Your task to perform on an android device: turn on improve location accuracy Image 0: 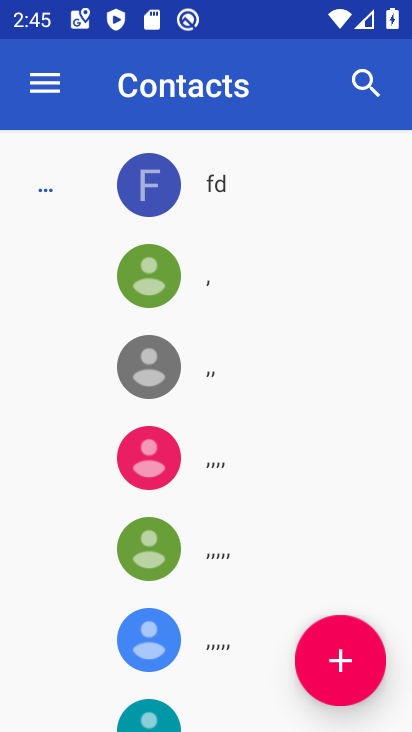
Step 0: press back button
Your task to perform on an android device: turn on improve location accuracy Image 1: 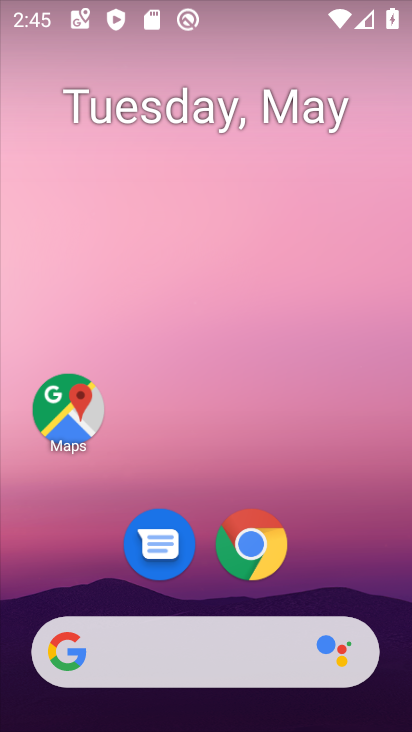
Step 1: drag from (323, 545) to (331, 72)
Your task to perform on an android device: turn on improve location accuracy Image 2: 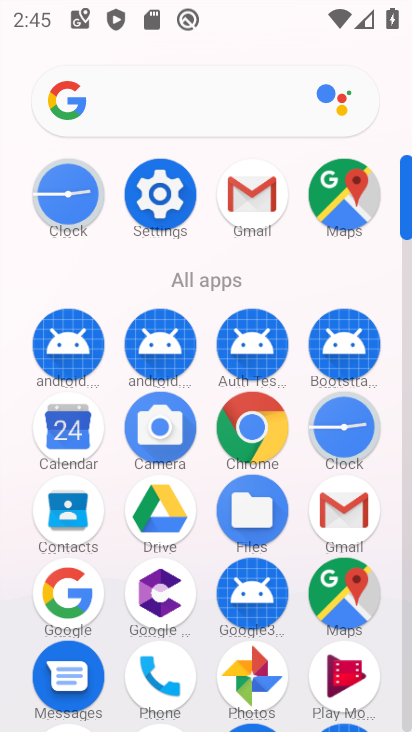
Step 2: click (161, 194)
Your task to perform on an android device: turn on improve location accuracy Image 3: 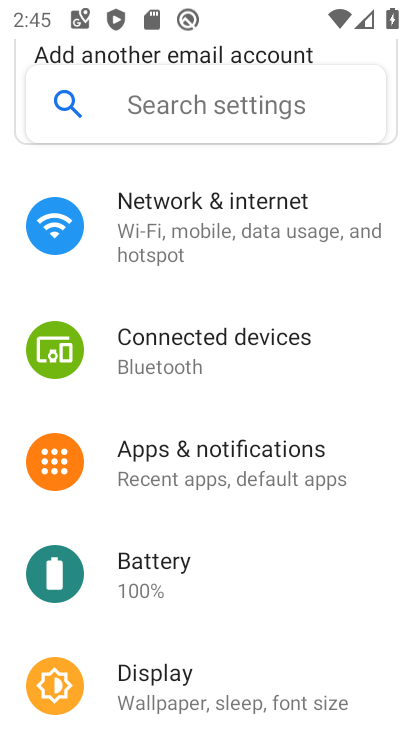
Step 3: drag from (212, 528) to (248, 403)
Your task to perform on an android device: turn on improve location accuracy Image 4: 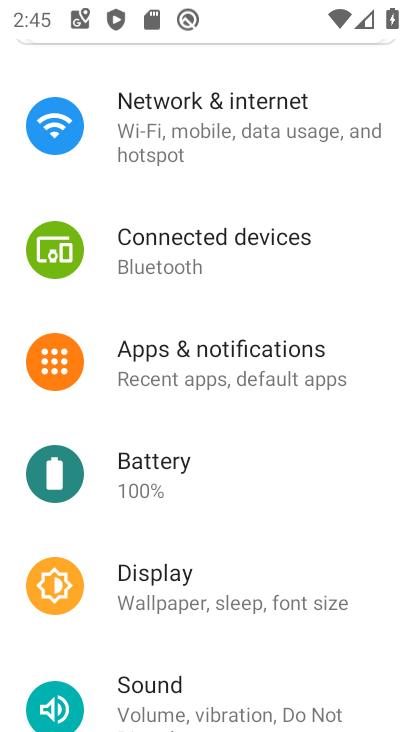
Step 4: drag from (192, 529) to (268, 417)
Your task to perform on an android device: turn on improve location accuracy Image 5: 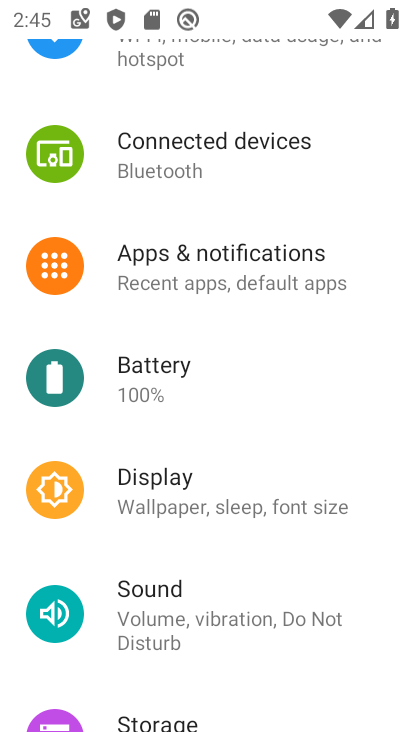
Step 5: drag from (166, 543) to (272, 418)
Your task to perform on an android device: turn on improve location accuracy Image 6: 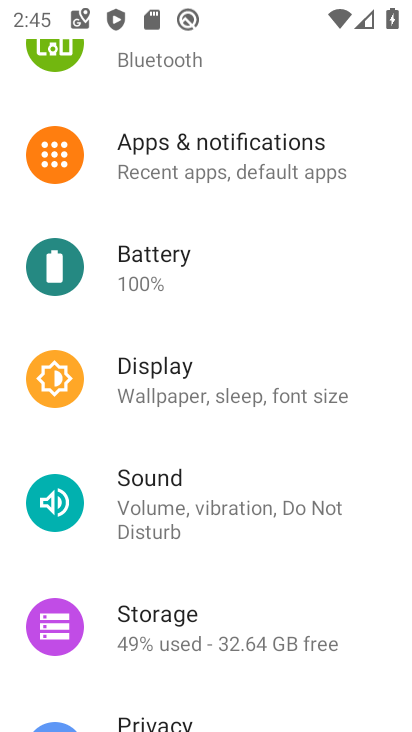
Step 6: drag from (149, 560) to (274, 423)
Your task to perform on an android device: turn on improve location accuracy Image 7: 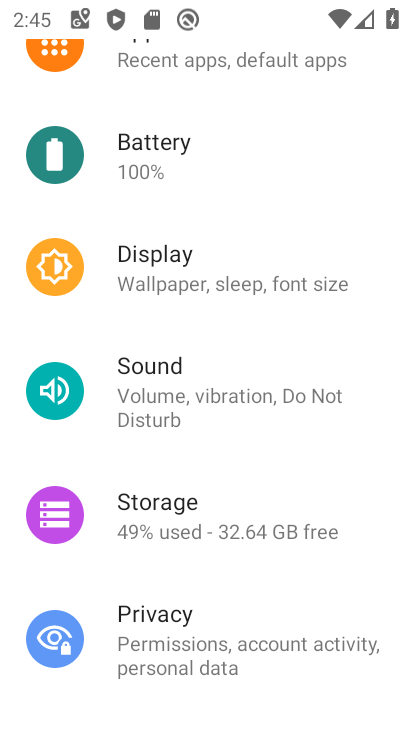
Step 7: drag from (146, 568) to (252, 432)
Your task to perform on an android device: turn on improve location accuracy Image 8: 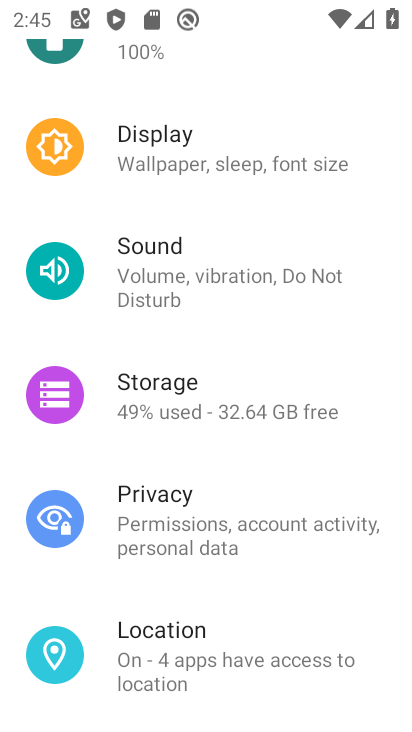
Step 8: drag from (163, 573) to (266, 457)
Your task to perform on an android device: turn on improve location accuracy Image 9: 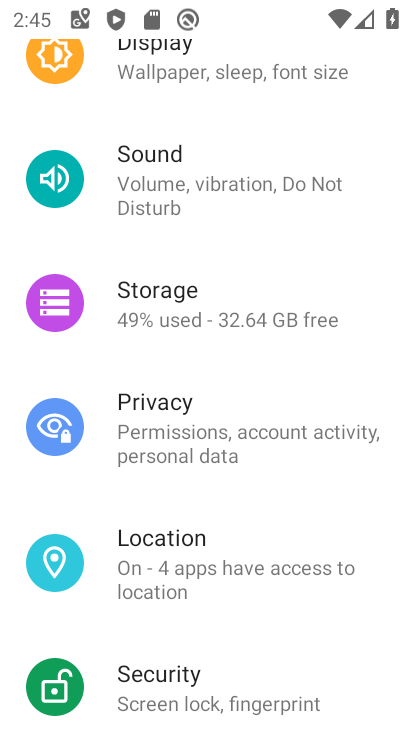
Step 9: click (175, 565)
Your task to perform on an android device: turn on improve location accuracy Image 10: 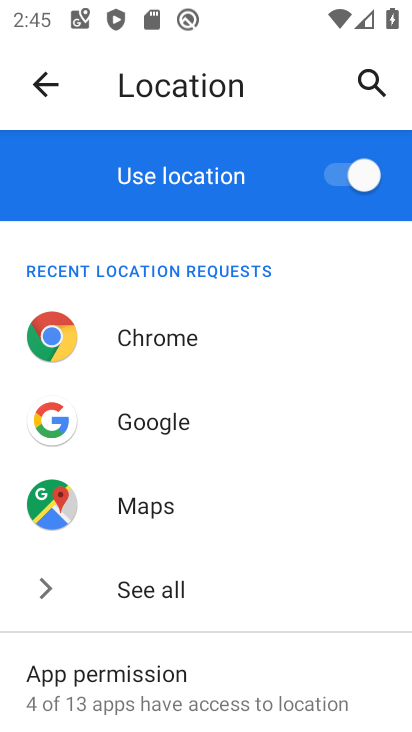
Step 10: drag from (213, 649) to (261, 517)
Your task to perform on an android device: turn on improve location accuracy Image 11: 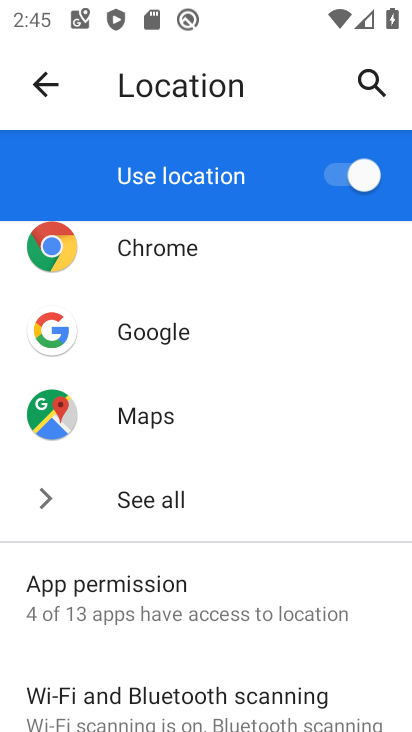
Step 11: drag from (203, 648) to (289, 526)
Your task to perform on an android device: turn on improve location accuracy Image 12: 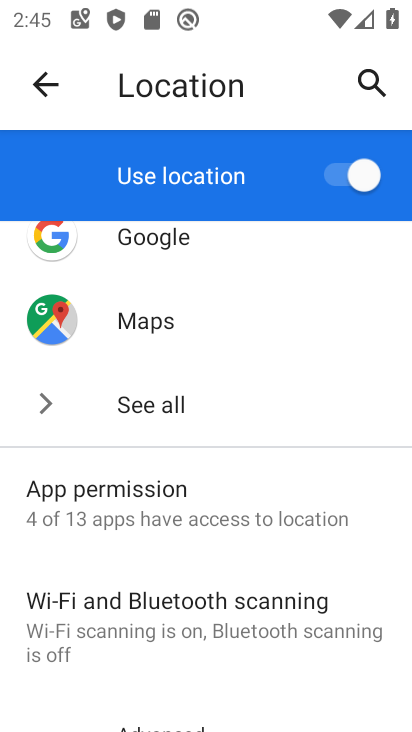
Step 12: drag from (197, 685) to (320, 415)
Your task to perform on an android device: turn on improve location accuracy Image 13: 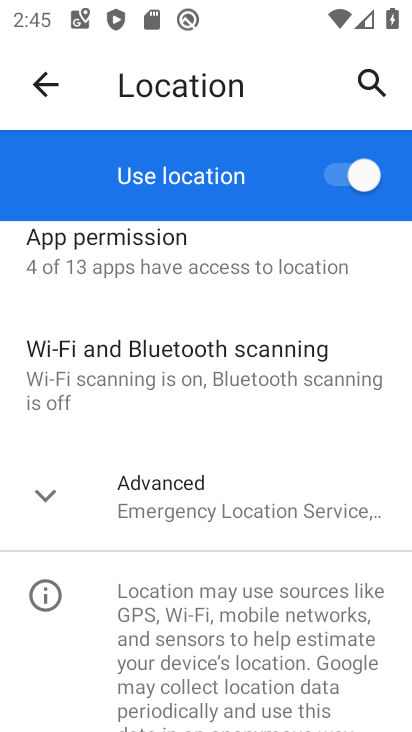
Step 13: click (216, 494)
Your task to perform on an android device: turn on improve location accuracy Image 14: 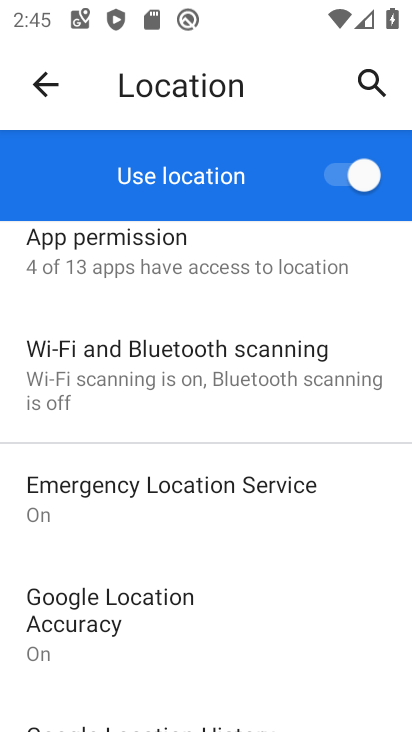
Step 14: click (175, 598)
Your task to perform on an android device: turn on improve location accuracy Image 15: 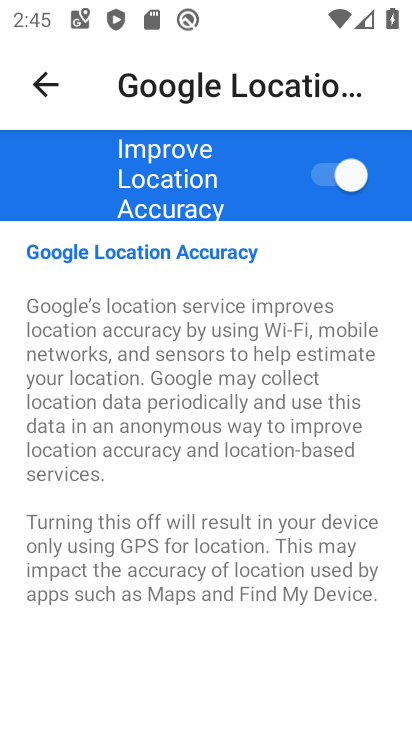
Step 15: task complete